Your task to perform on an android device: allow cookies in the chrome app Image 0: 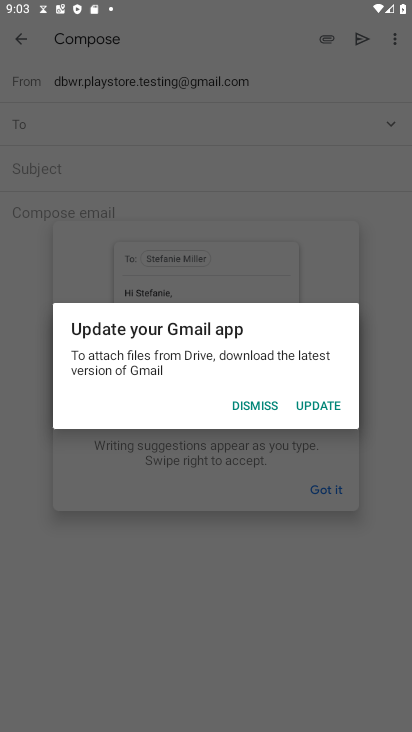
Step 0: press back button
Your task to perform on an android device: allow cookies in the chrome app Image 1: 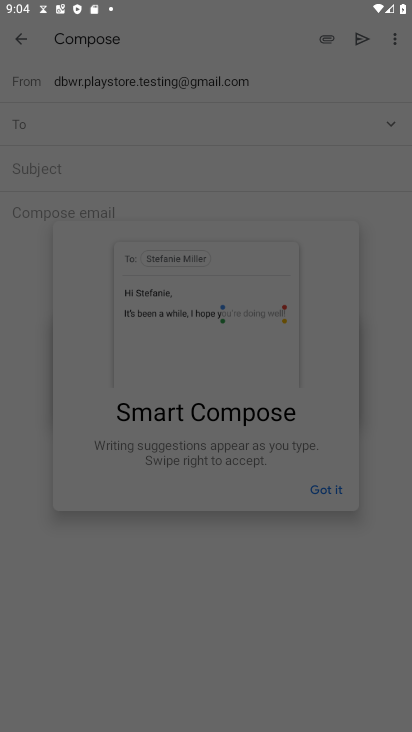
Step 1: press home button
Your task to perform on an android device: allow cookies in the chrome app Image 2: 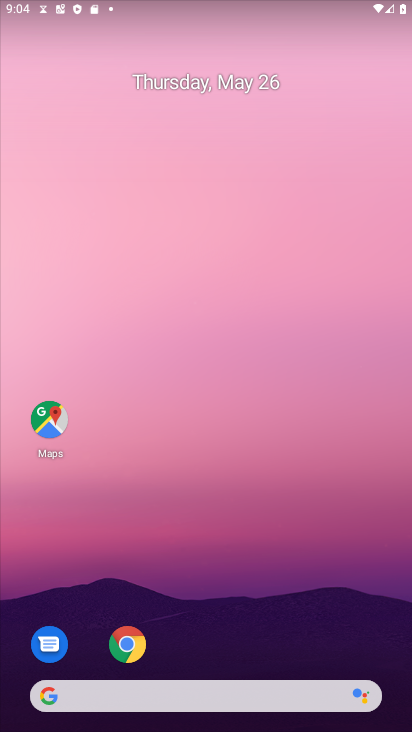
Step 2: click (121, 642)
Your task to perform on an android device: allow cookies in the chrome app Image 3: 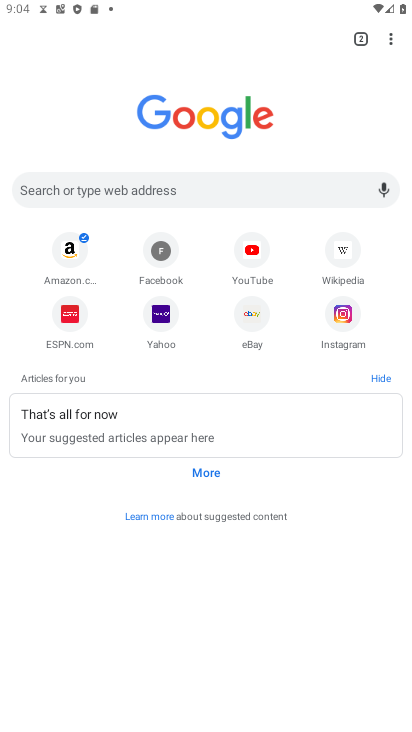
Step 3: drag from (390, 30) to (258, 361)
Your task to perform on an android device: allow cookies in the chrome app Image 4: 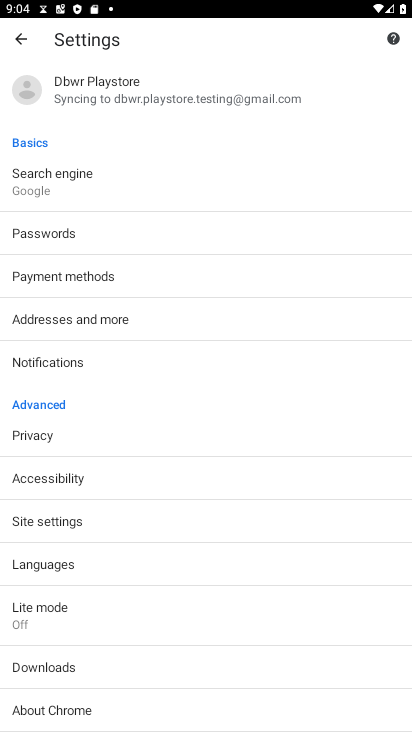
Step 4: click (62, 515)
Your task to perform on an android device: allow cookies in the chrome app Image 5: 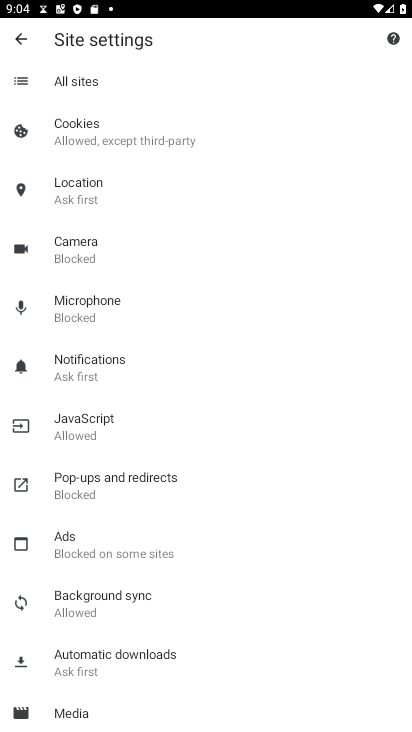
Step 5: click (104, 128)
Your task to perform on an android device: allow cookies in the chrome app Image 6: 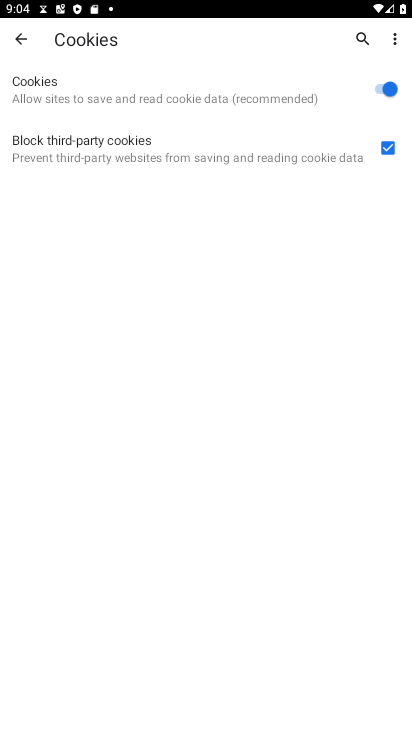
Step 6: task complete